Your task to perform on an android device: Search for vegetarian restaurants on Maps Image 0: 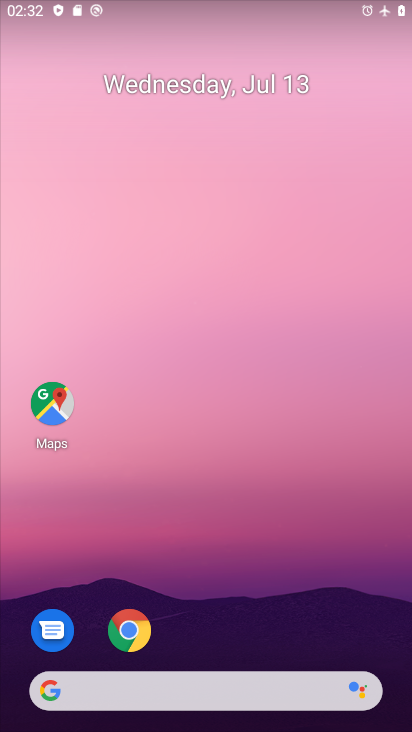
Step 0: click (63, 408)
Your task to perform on an android device: Search for vegetarian restaurants on Maps Image 1: 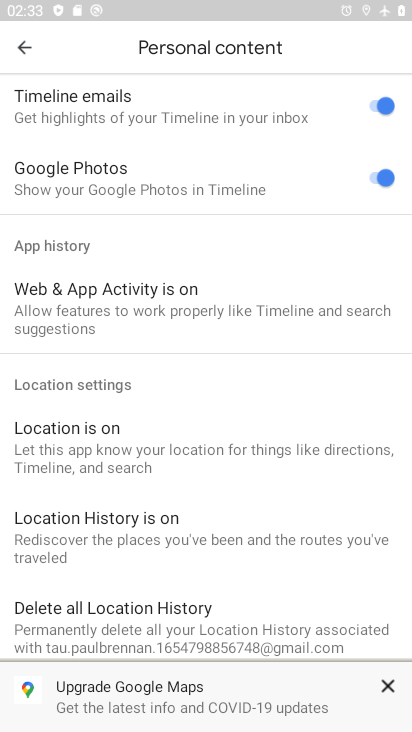
Step 1: click (28, 43)
Your task to perform on an android device: Search for vegetarian restaurants on Maps Image 2: 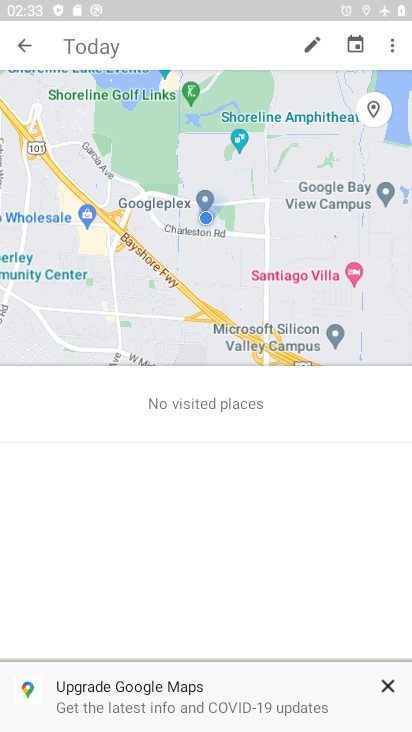
Step 2: click (14, 45)
Your task to perform on an android device: Search for vegetarian restaurants on Maps Image 3: 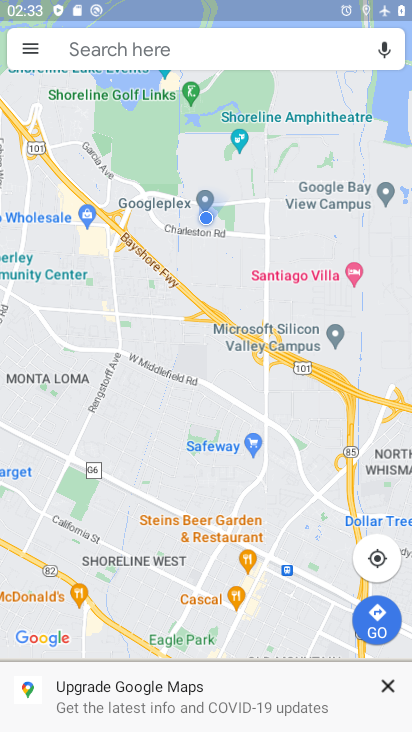
Step 3: click (175, 53)
Your task to perform on an android device: Search for vegetarian restaurants on Maps Image 4: 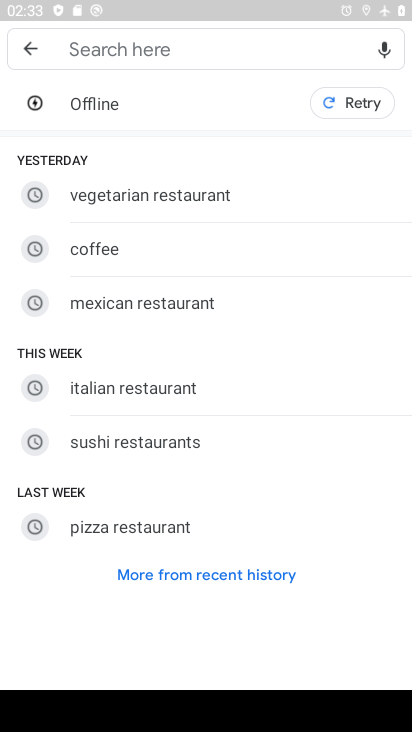
Step 4: type "vegetarian restaurants "
Your task to perform on an android device: Search for vegetarian restaurants on Maps Image 5: 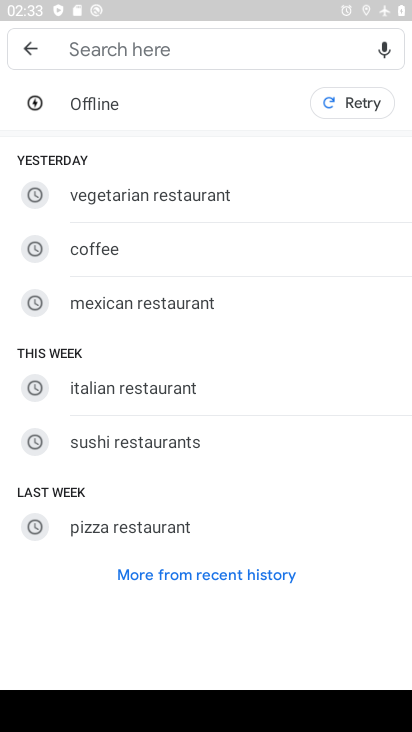
Step 5: click (251, 204)
Your task to perform on an android device: Search for vegetarian restaurants on Maps Image 6: 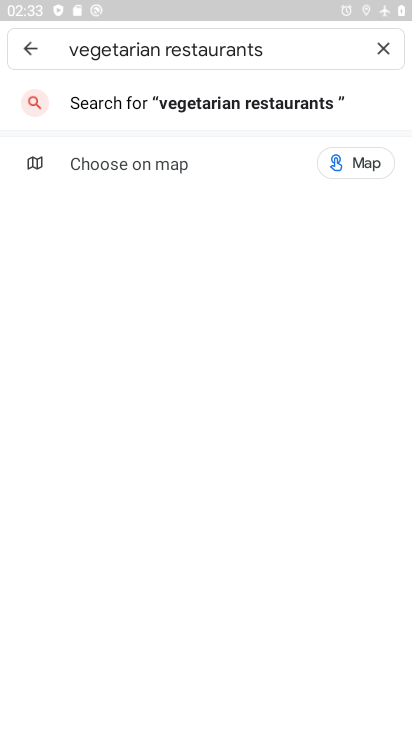
Step 6: click (235, 111)
Your task to perform on an android device: Search for vegetarian restaurants on Maps Image 7: 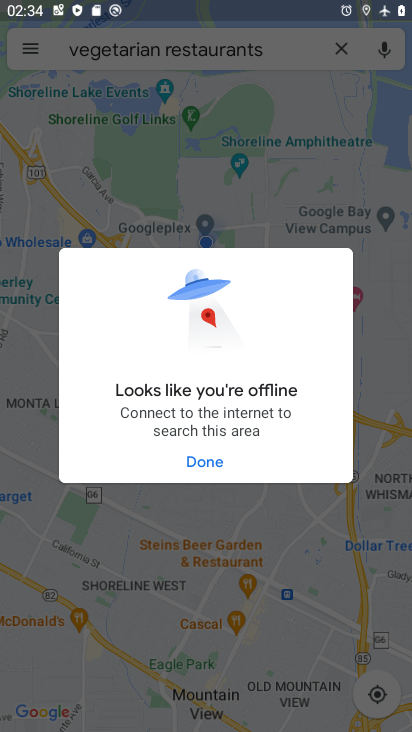
Step 7: task complete